Your task to perform on an android device: Open eBay Image 0: 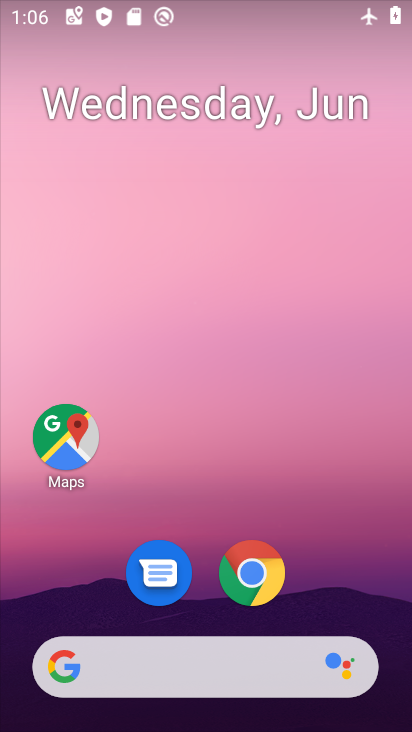
Step 0: drag from (359, 597) to (364, 119)
Your task to perform on an android device: Open eBay Image 1: 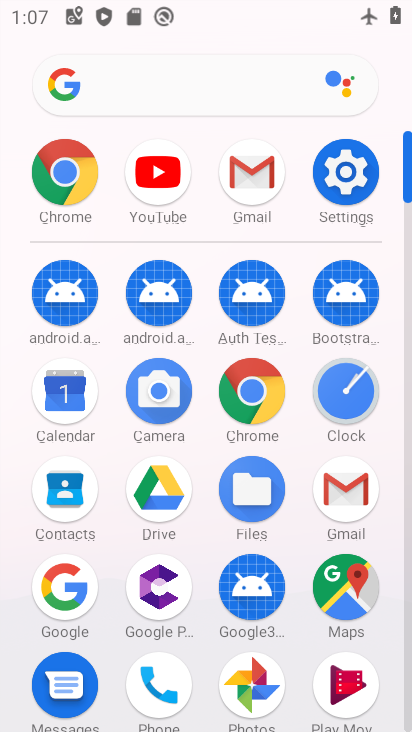
Step 1: click (278, 401)
Your task to perform on an android device: Open eBay Image 2: 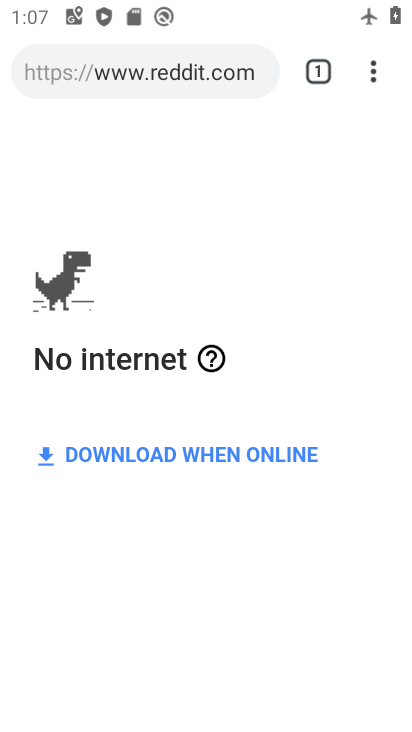
Step 2: task complete